Your task to perform on an android device: toggle location history Image 0: 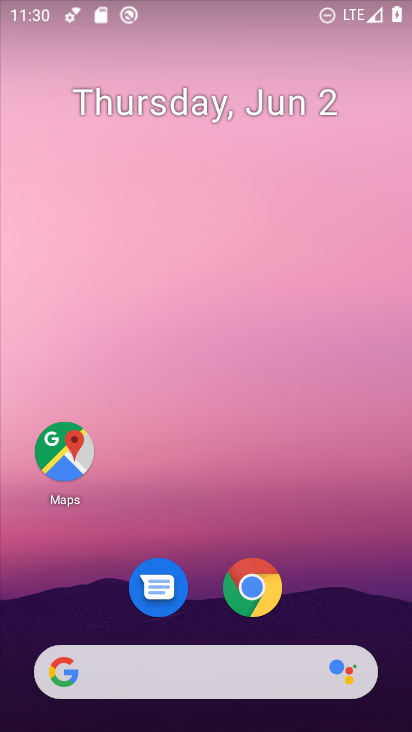
Step 0: click (71, 452)
Your task to perform on an android device: toggle location history Image 1: 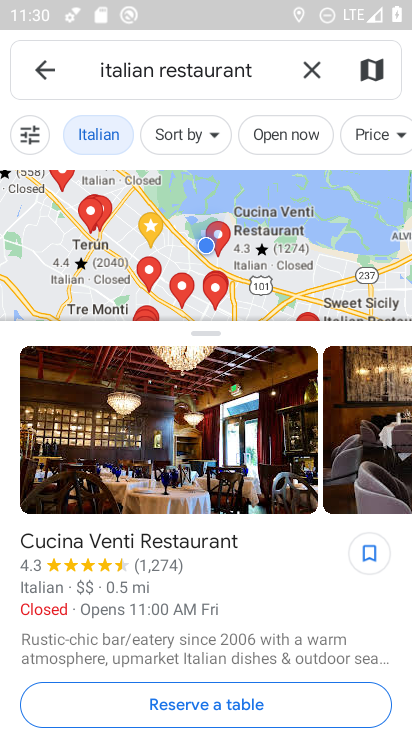
Step 1: click (53, 84)
Your task to perform on an android device: toggle location history Image 2: 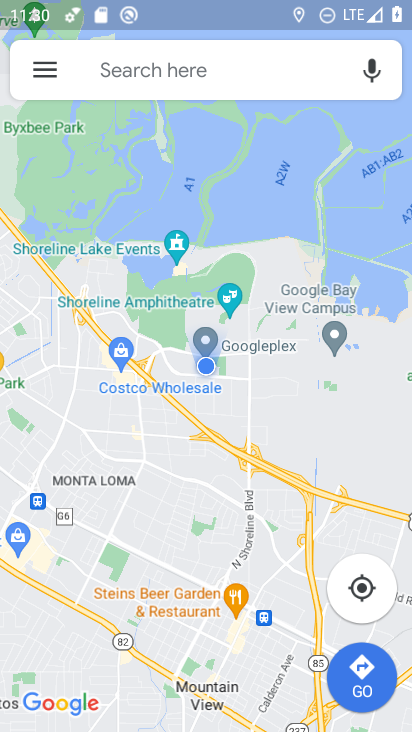
Step 2: click (49, 79)
Your task to perform on an android device: toggle location history Image 3: 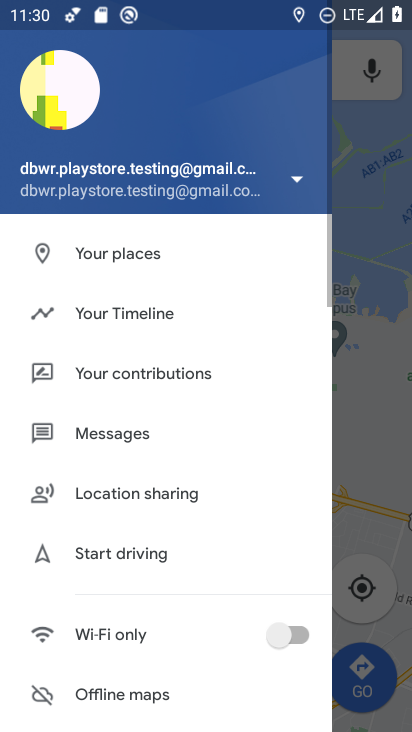
Step 3: click (141, 312)
Your task to perform on an android device: toggle location history Image 4: 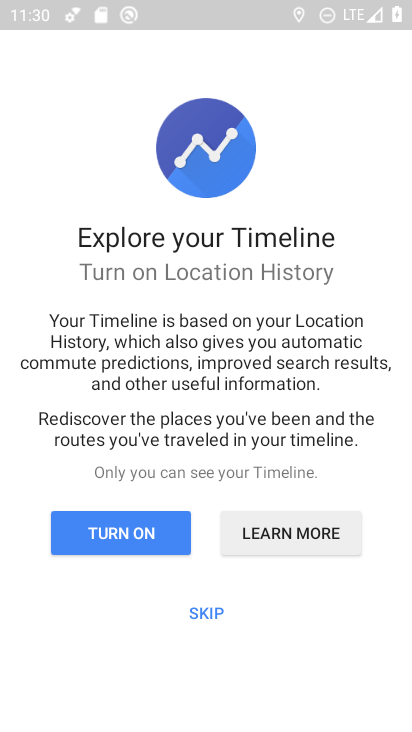
Step 4: click (208, 610)
Your task to perform on an android device: toggle location history Image 5: 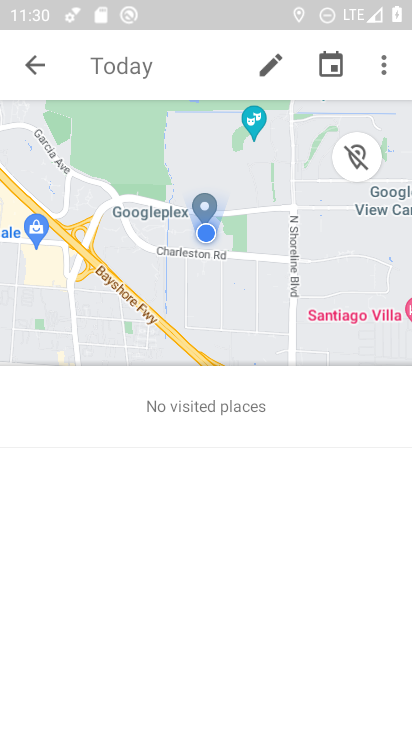
Step 5: click (381, 71)
Your task to perform on an android device: toggle location history Image 6: 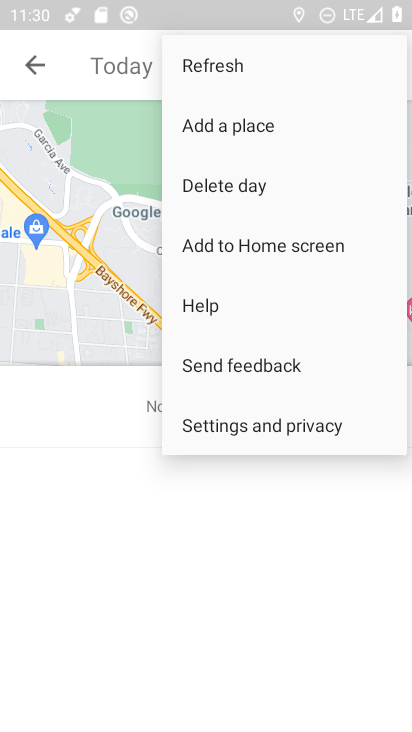
Step 6: click (272, 434)
Your task to perform on an android device: toggle location history Image 7: 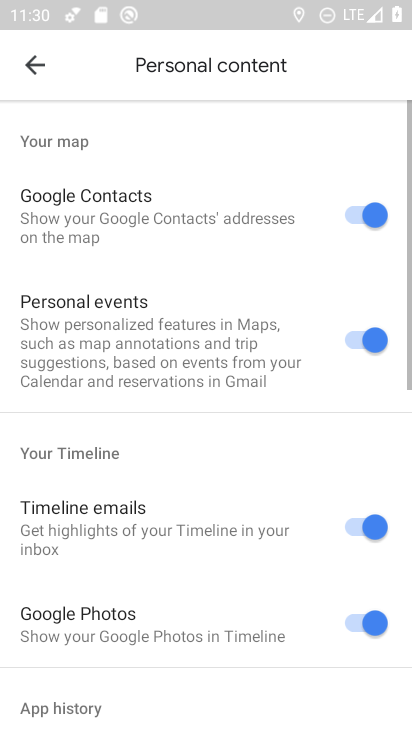
Step 7: drag from (239, 594) to (194, 226)
Your task to perform on an android device: toggle location history Image 8: 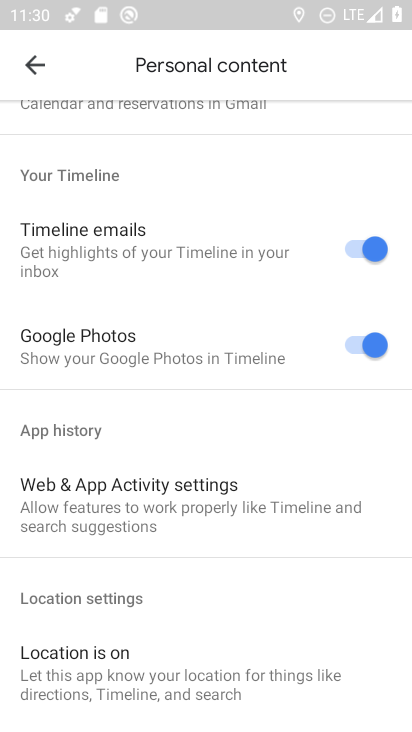
Step 8: drag from (187, 662) to (175, 246)
Your task to perform on an android device: toggle location history Image 9: 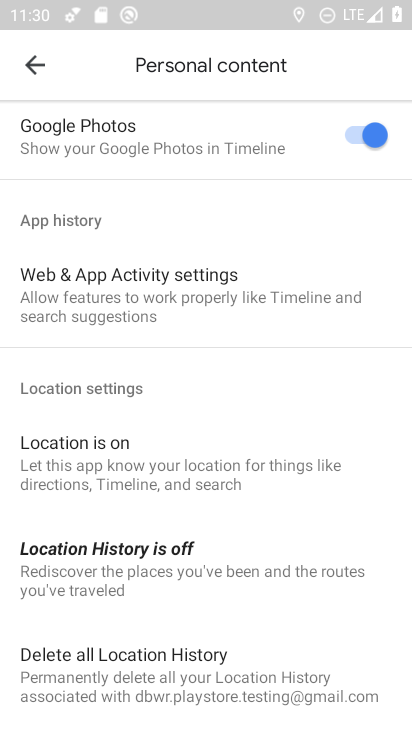
Step 9: click (179, 556)
Your task to perform on an android device: toggle location history Image 10: 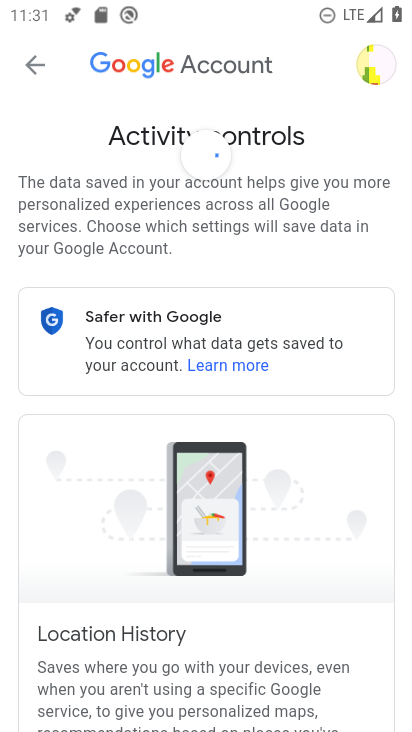
Step 10: drag from (315, 482) to (276, 115)
Your task to perform on an android device: toggle location history Image 11: 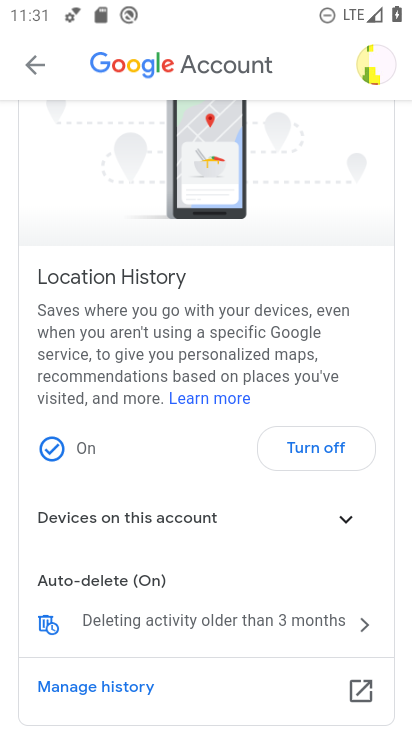
Step 11: click (311, 452)
Your task to perform on an android device: toggle location history Image 12: 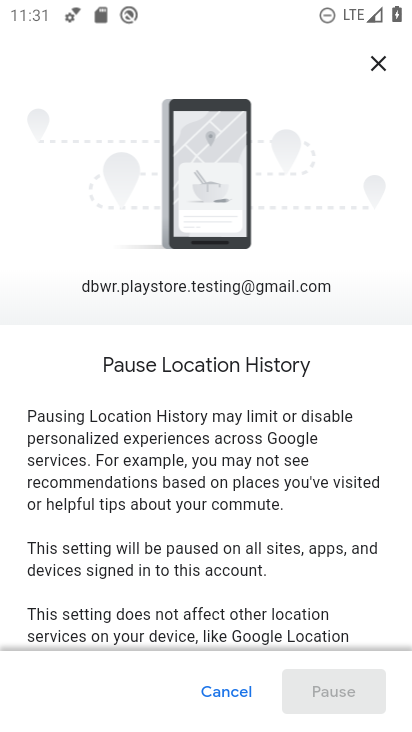
Step 12: drag from (338, 635) to (246, 185)
Your task to perform on an android device: toggle location history Image 13: 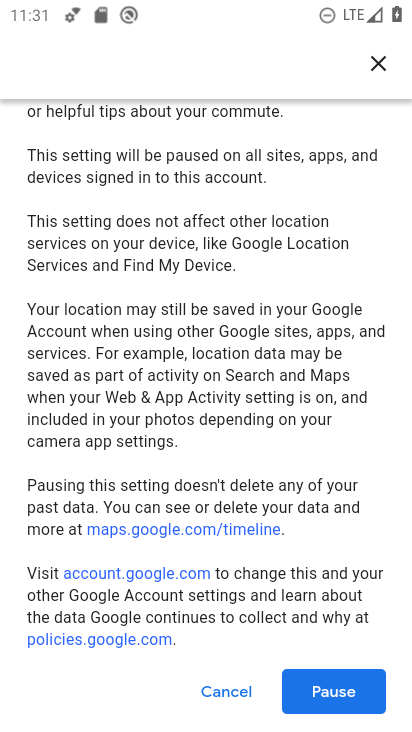
Step 13: click (352, 706)
Your task to perform on an android device: toggle location history Image 14: 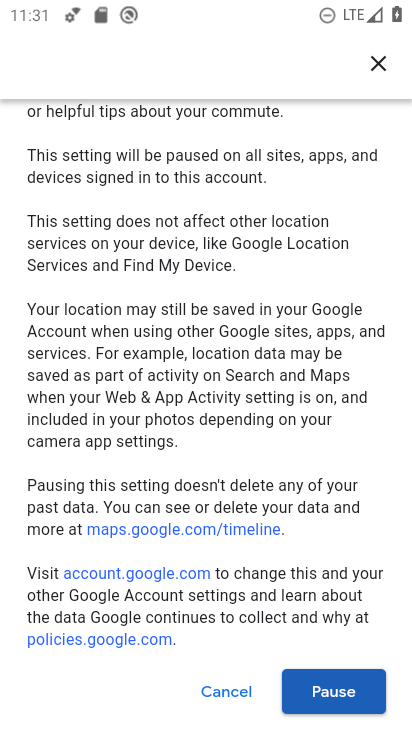
Step 14: click (352, 706)
Your task to perform on an android device: toggle location history Image 15: 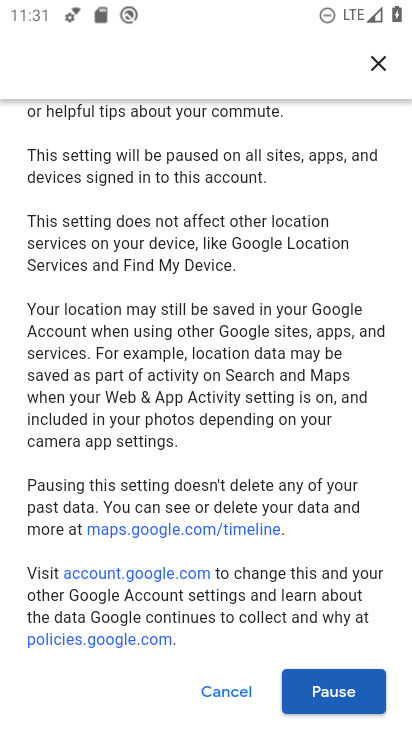
Step 15: click (345, 701)
Your task to perform on an android device: toggle location history Image 16: 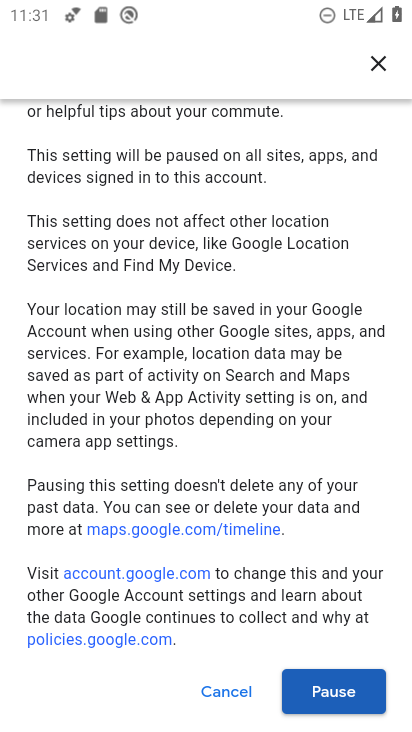
Step 16: click (345, 702)
Your task to perform on an android device: toggle location history Image 17: 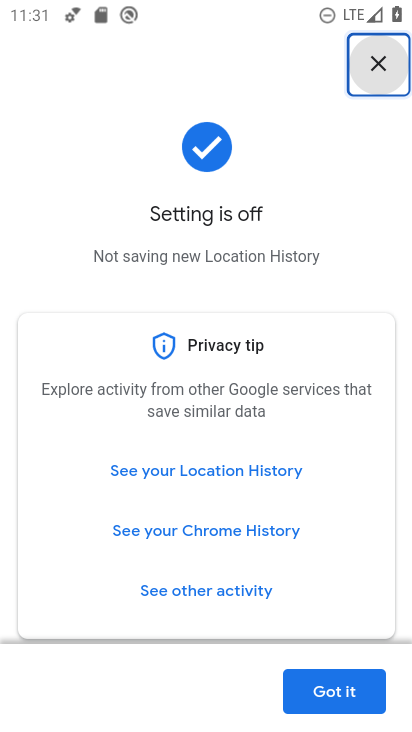
Step 17: click (336, 686)
Your task to perform on an android device: toggle location history Image 18: 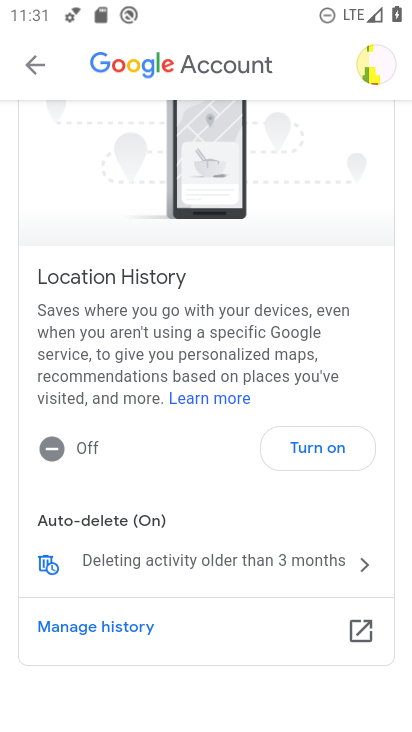
Step 18: task complete